Your task to perform on an android device: Open Amazon Image 0: 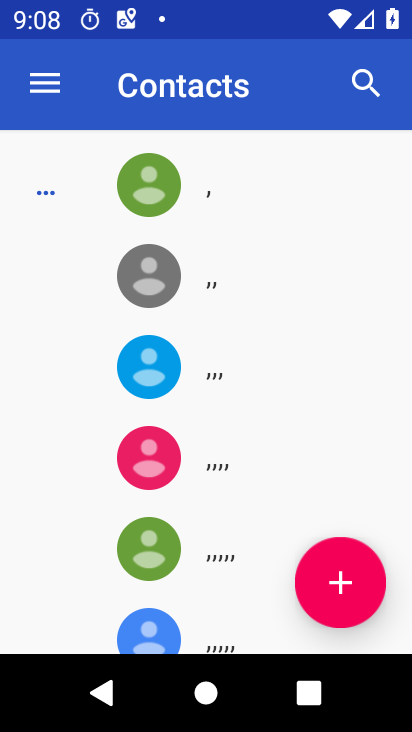
Step 0: press home button
Your task to perform on an android device: Open Amazon Image 1: 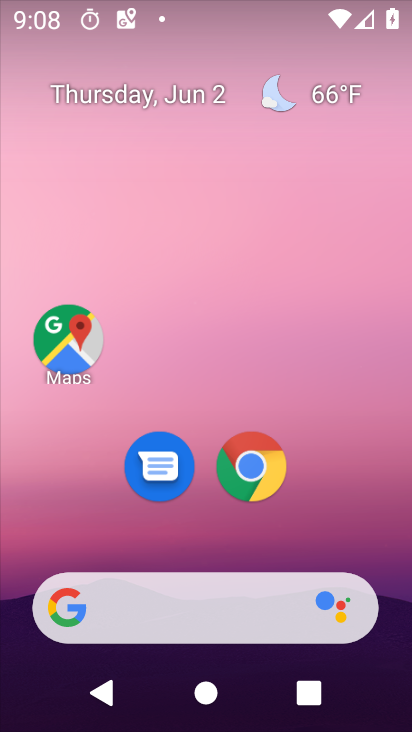
Step 1: click (254, 464)
Your task to perform on an android device: Open Amazon Image 2: 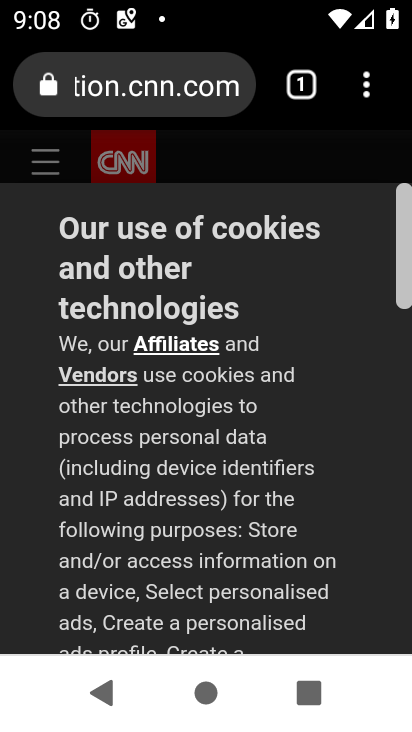
Step 2: click (297, 93)
Your task to perform on an android device: Open Amazon Image 3: 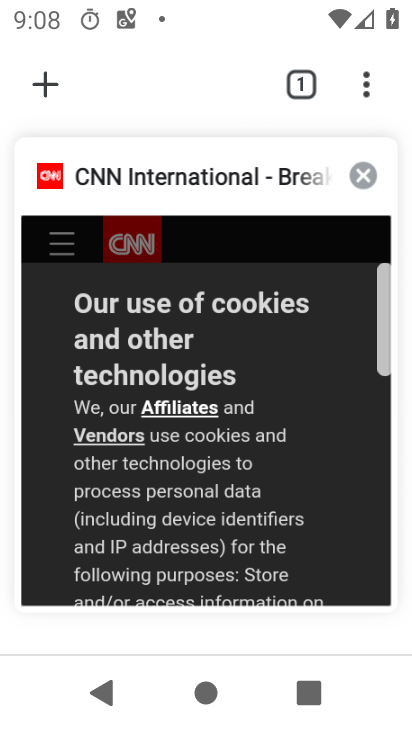
Step 3: click (375, 177)
Your task to perform on an android device: Open Amazon Image 4: 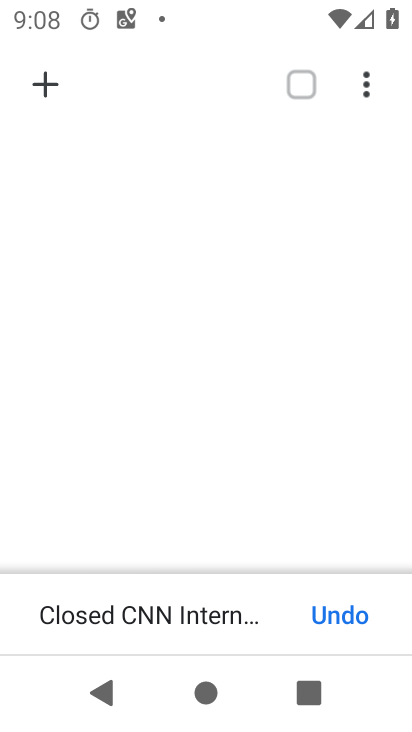
Step 4: click (41, 81)
Your task to perform on an android device: Open Amazon Image 5: 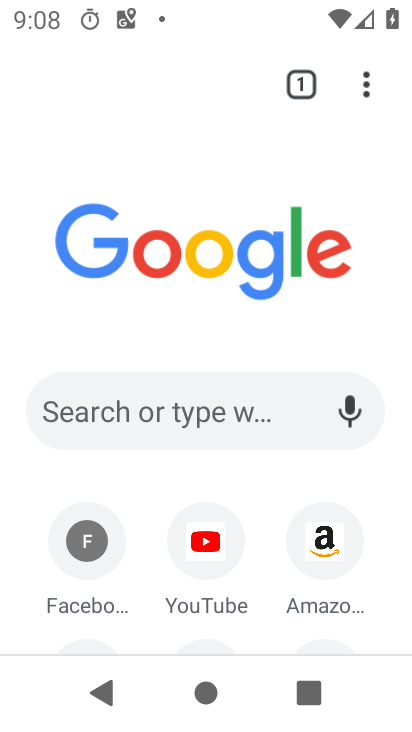
Step 5: click (322, 541)
Your task to perform on an android device: Open Amazon Image 6: 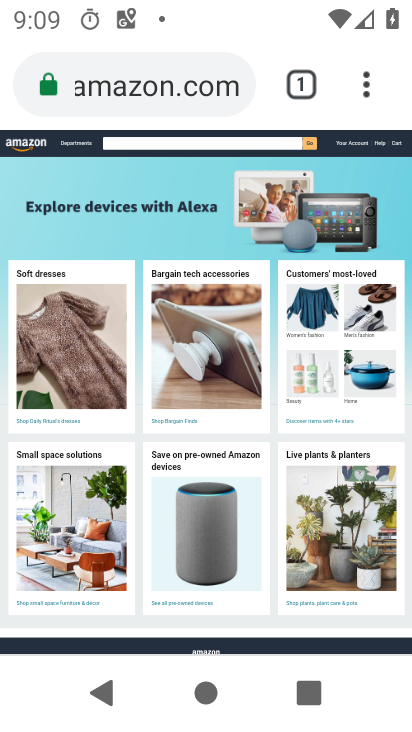
Step 6: task complete